Your task to perform on an android device: Search for seafood restaurants on Google Maps Image 0: 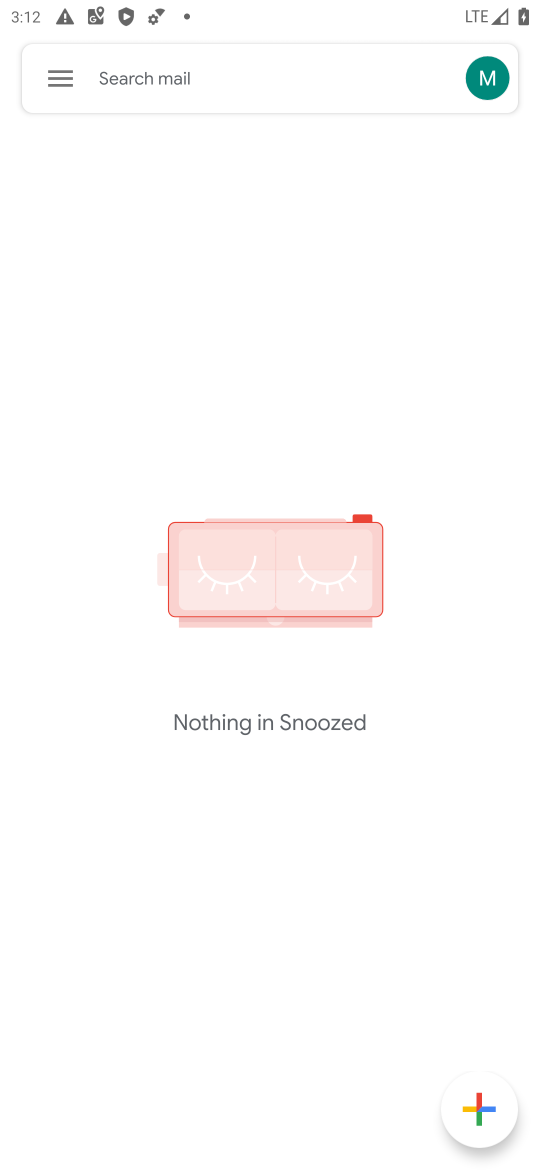
Step 0: press home button
Your task to perform on an android device: Search for seafood restaurants on Google Maps Image 1: 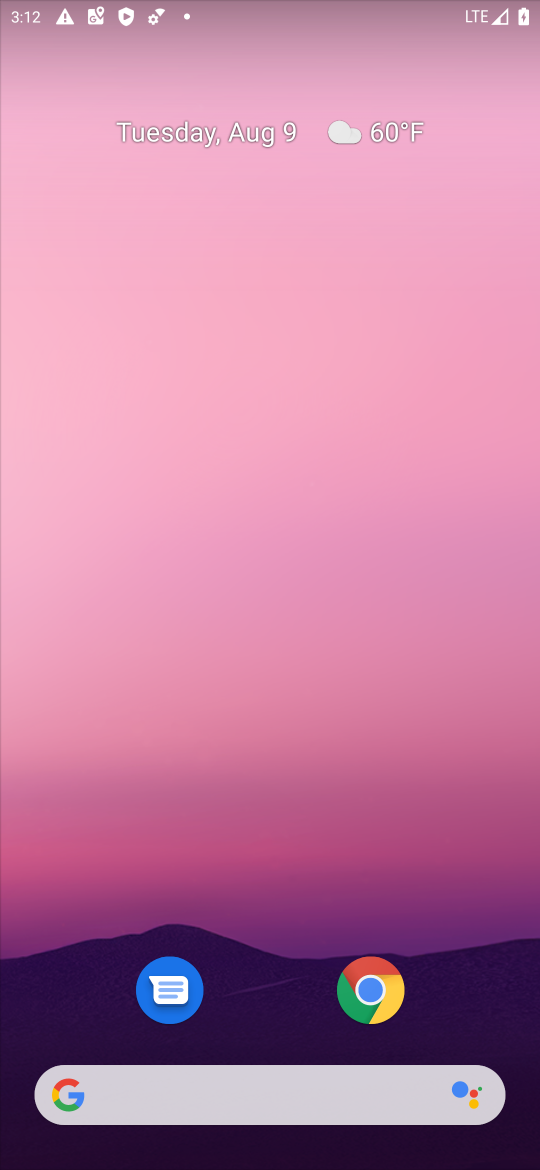
Step 1: drag from (219, 1146) to (276, 259)
Your task to perform on an android device: Search for seafood restaurants on Google Maps Image 2: 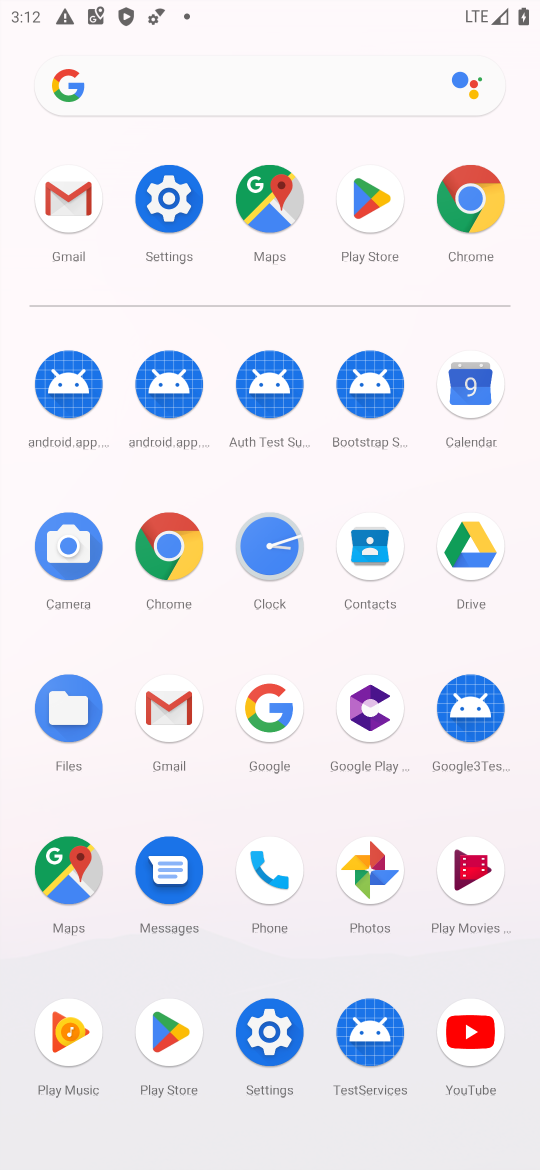
Step 2: click (74, 864)
Your task to perform on an android device: Search for seafood restaurants on Google Maps Image 3: 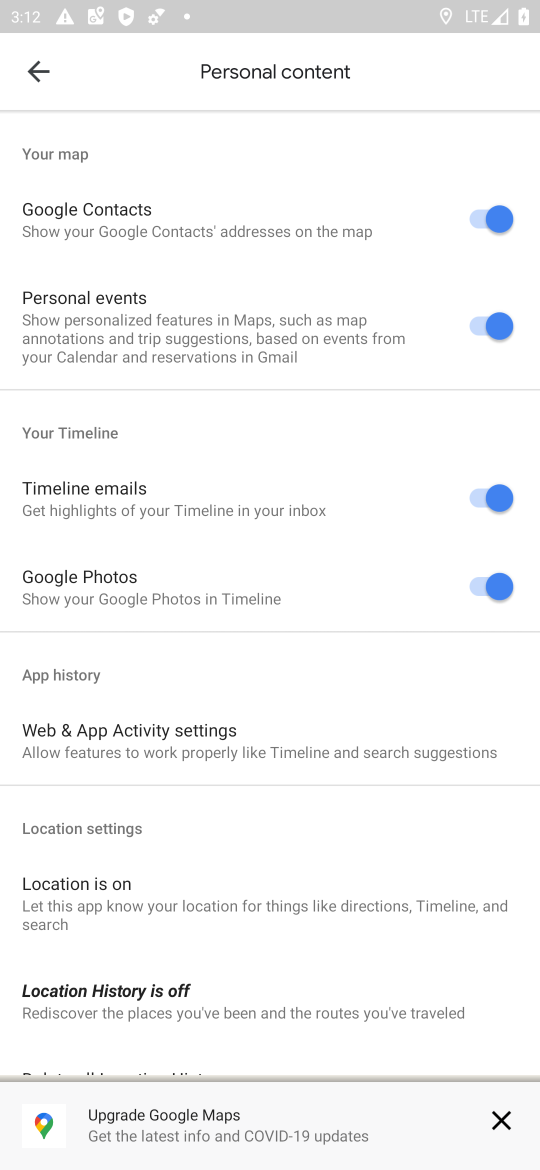
Step 3: press back button
Your task to perform on an android device: Search for seafood restaurants on Google Maps Image 4: 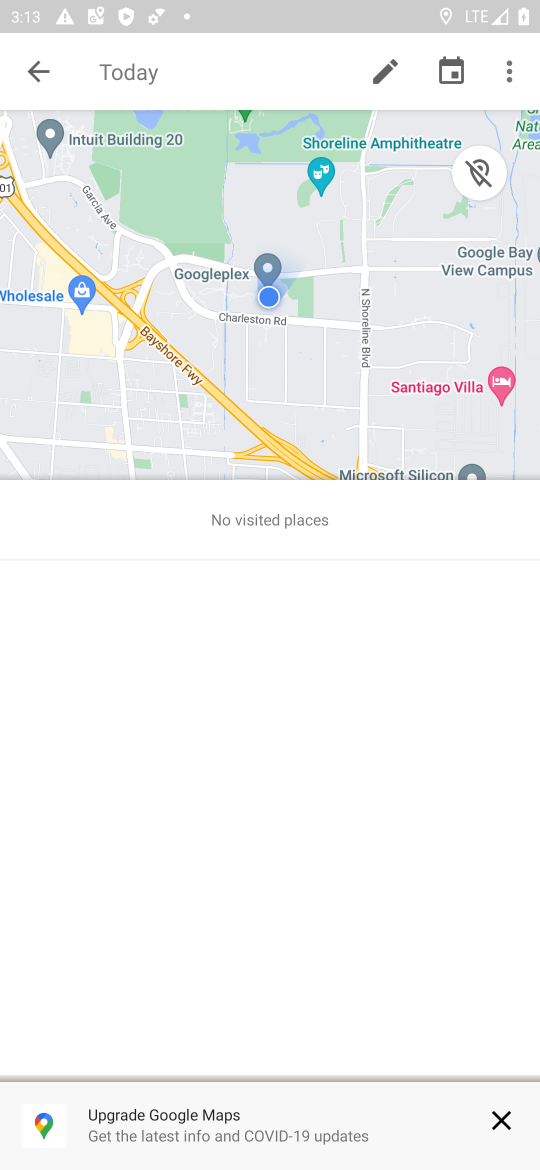
Step 4: click (251, 42)
Your task to perform on an android device: Search for seafood restaurants on Google Maps Image 5: 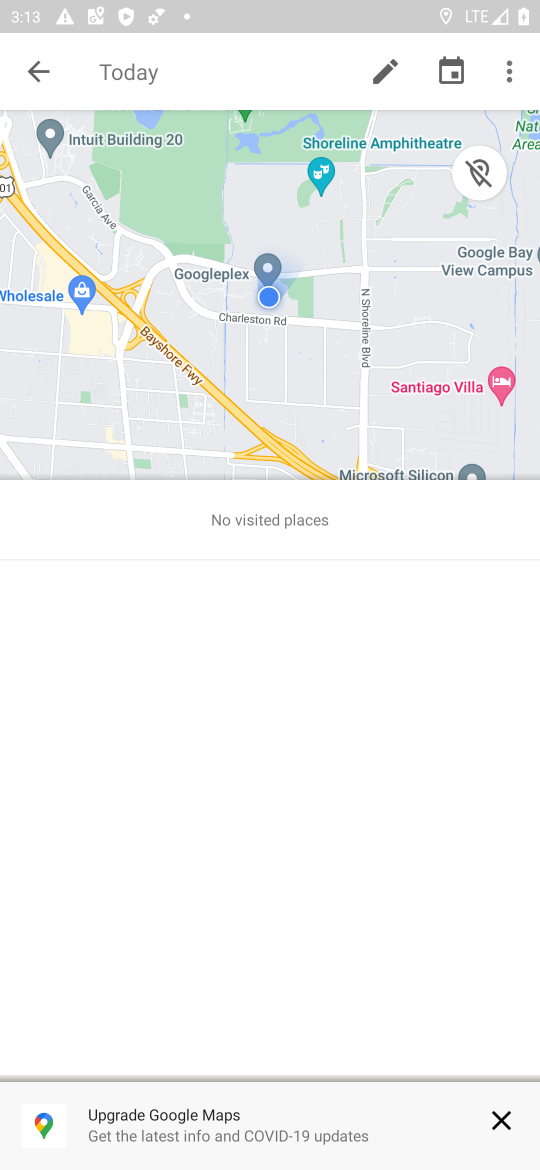
Step 5: click (251, 42)
Your task to perform on an android device: Search for seafood restaurants on Google Maps Image 6: 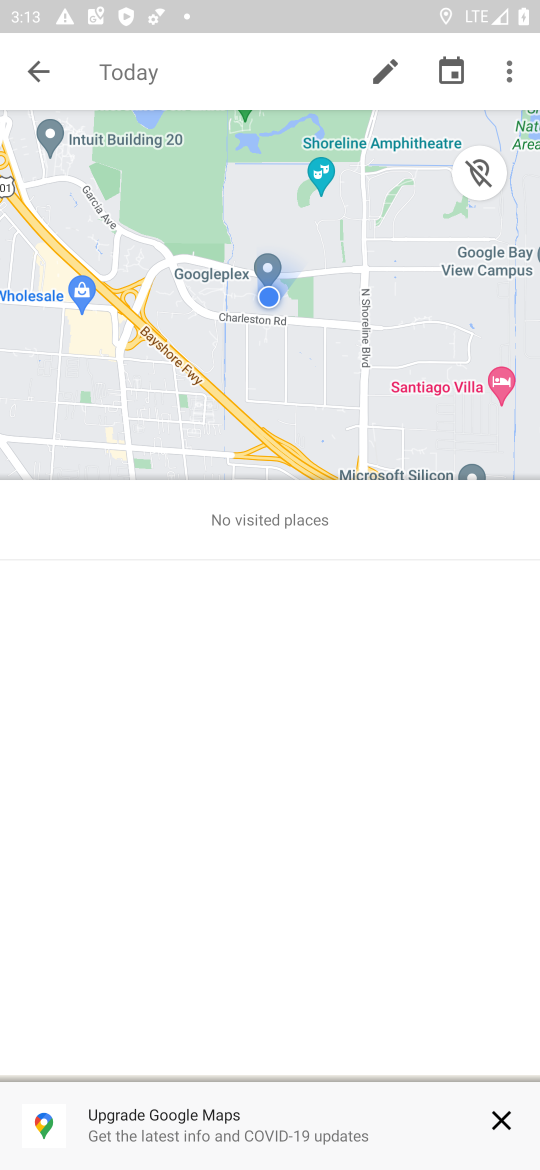
Step 6: press back button
Your task to perform on an android device: Search for seafood restaurants on Google Maps Image 7: 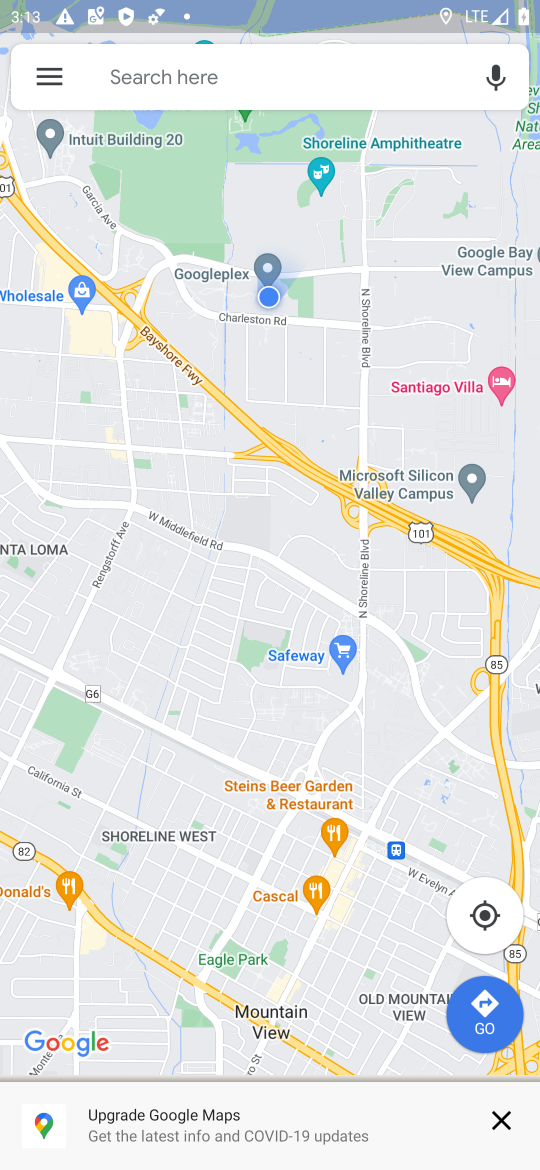
Step 7: click (302, 86)
Your task to perform on an android device: Search for seafood restaurants on Google Maps Image 8: 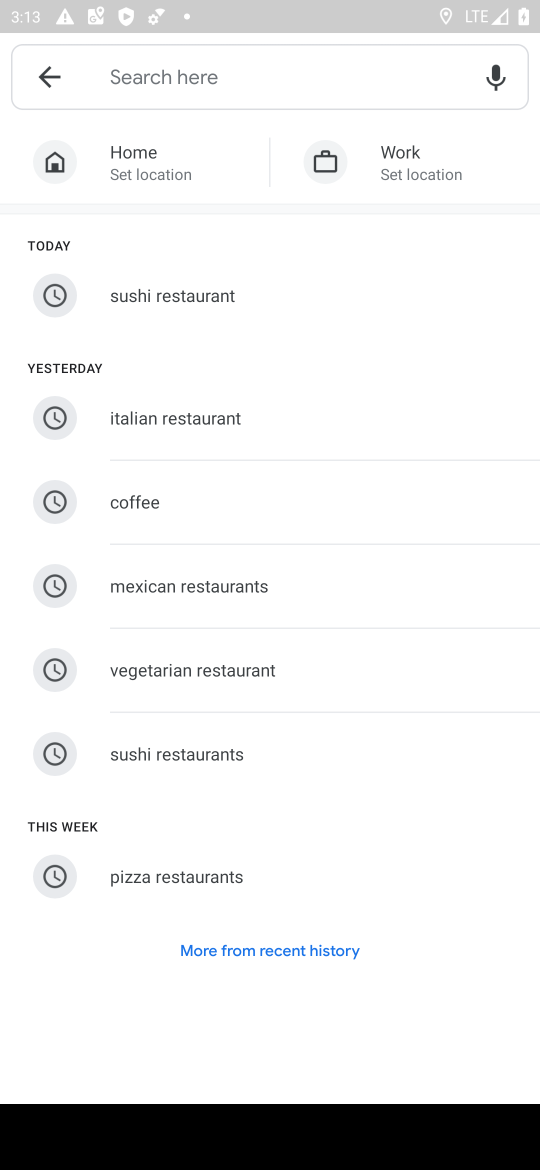
Step 8: type "seafood restaurant"
Your task to perform on an android device: Search for seafood restaurants on Google Maps Image 9: 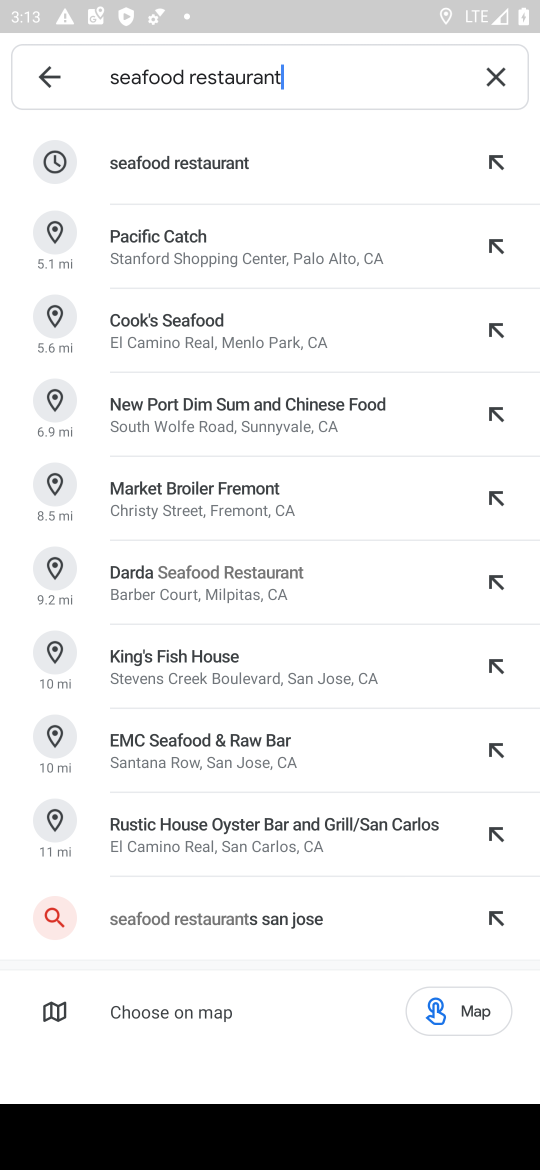
Step 9: click (340, 168)
Your task to perform on an android device: Search for seafood restaurants on Google Maps Image 10: 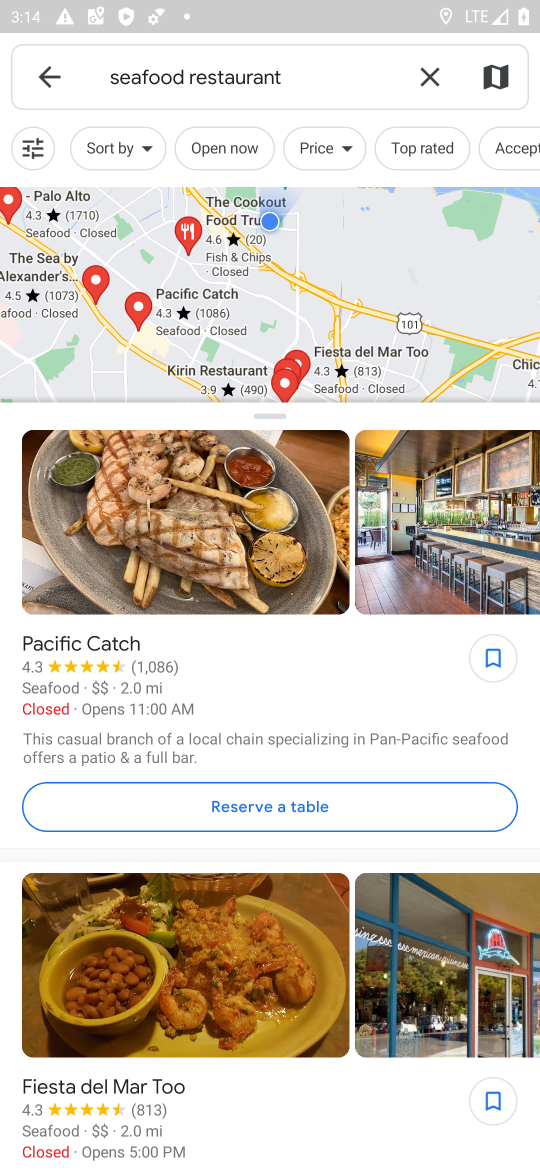
Step 10: task complete